Your task to perform on an android device: read, delete, or share a saved page in the chrome app Image 0: 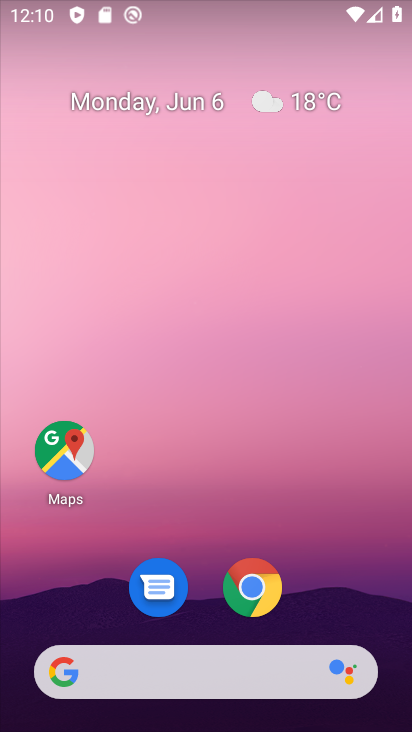
Step 0: drag from (346, 558) to (389, 136)
Your task to perform on an android device: read, delete, or share a saved page in the chrome app Image 1: 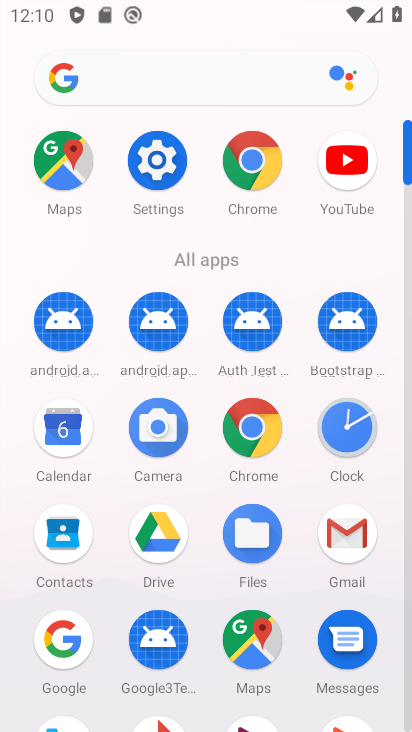
Step 1: click (262, 449)
Your task to perform on an android device: read, delete, or share a saved page in the chrome app Image 2: 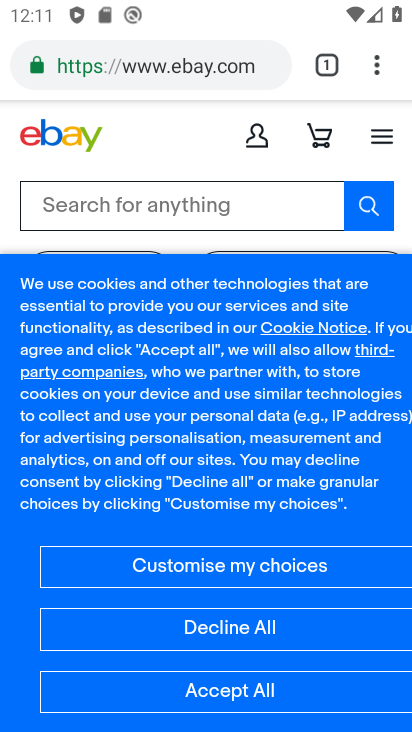
Step 2: task complete